Your task to perform on an android device: turn off improve location accuracy Image 0: 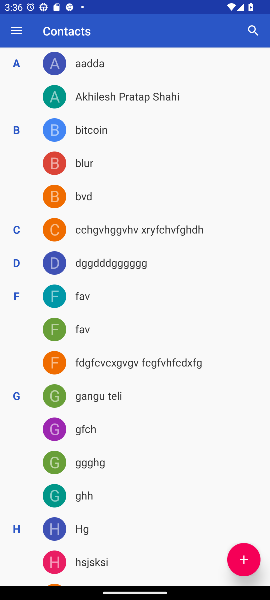
Step 0: press home button
Your task to perform on an android device: turn off improve location accuracy Image 1: 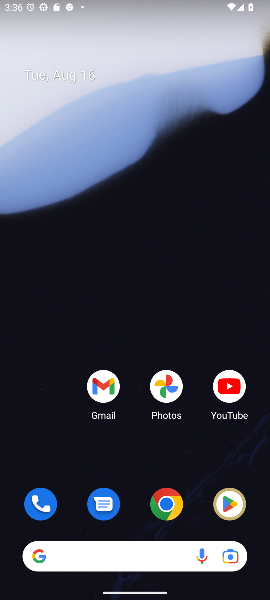
Step 1: drag from (136, 497) to (126, 60)
Your task to perform on an android device: turn off improve location accuracy Image 2: 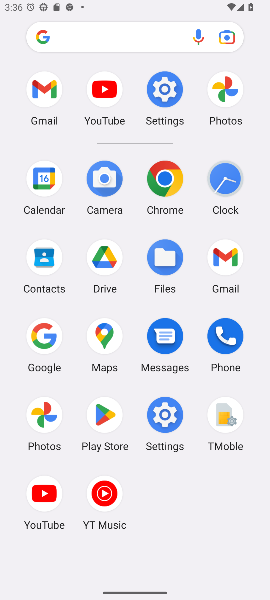
Step 2: click (164, 90)
Your task to perform on an android device: turn off improve location accuracy Image 3: 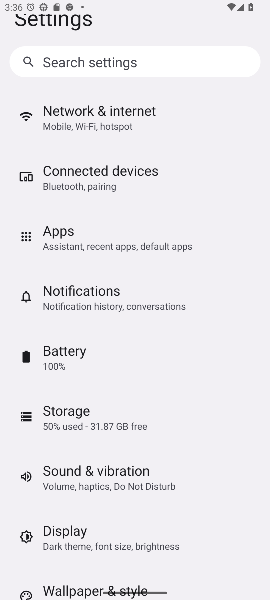
Step 3: drag from (197, 521) to (168, 219)
Your task to perform on an android device: turn off improve location accuracy Image 4: 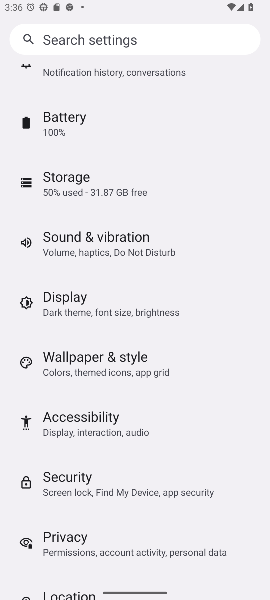
Step 4: click (64, 589)
Your task to perform on an android device: turn off improve location accuracy Image 5: 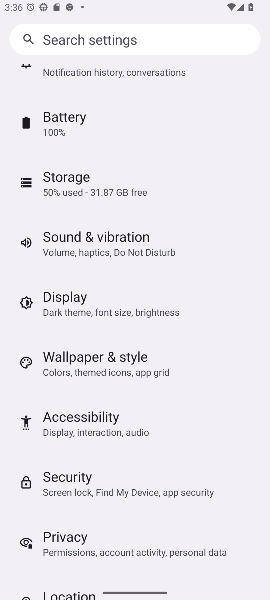
Step 5: drag from (198, 452) to (188, 187)
Your task to perform on an android device: turn off improve location accuracy Image 6: 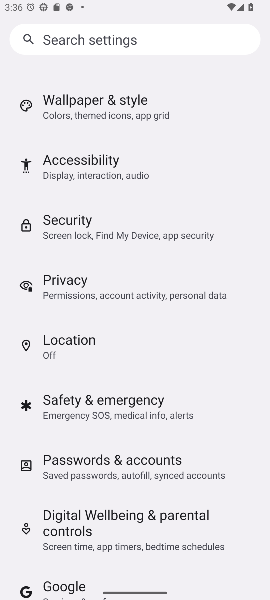
Step 6: click (63, 337)
Your task to perform on an android device: turn off improve location accuracy Image 7: 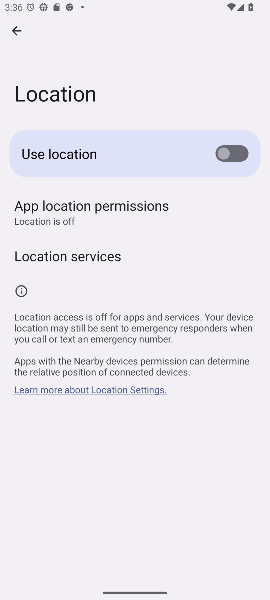
Step 7: click (68, 252)
Your task to perform on an android device: turn off improve location accuracy Image 8: 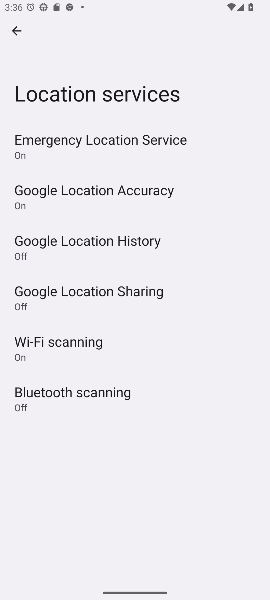
Step 8: click (114, 189)
Your task to perform on an android device: turn off improve location accuracy Image 9: 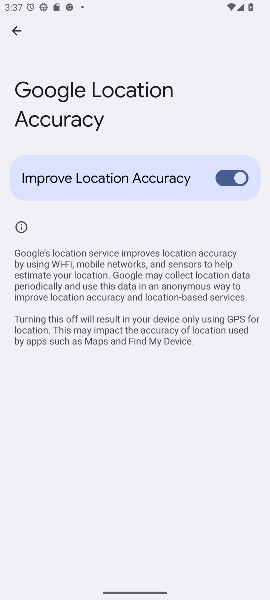
Step 9: click (239, 178)
Your task to perform on an android device: turn off improve location accuracy Image 10: 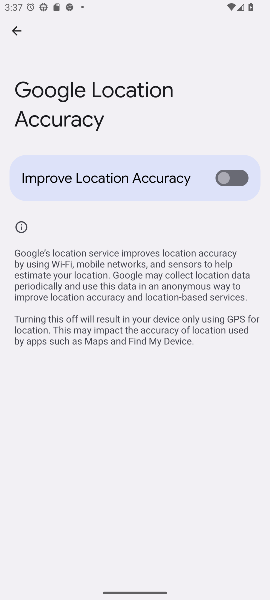
Step 10: task complete